Your task to perform on an android device: Open settings Image 0: 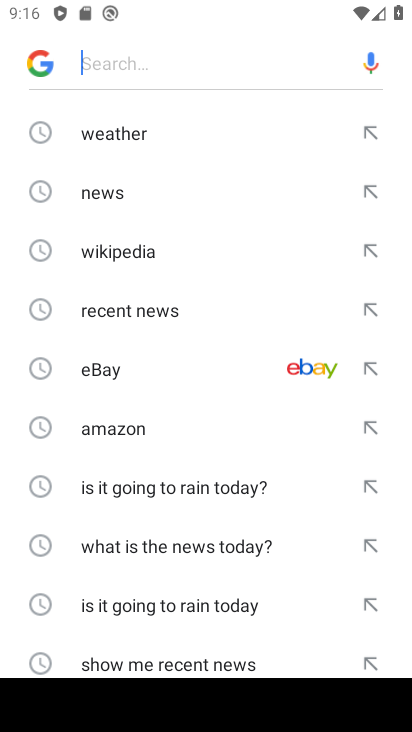
Step 0: press home button
Your task to perform on an android device: Open settings Image 1: 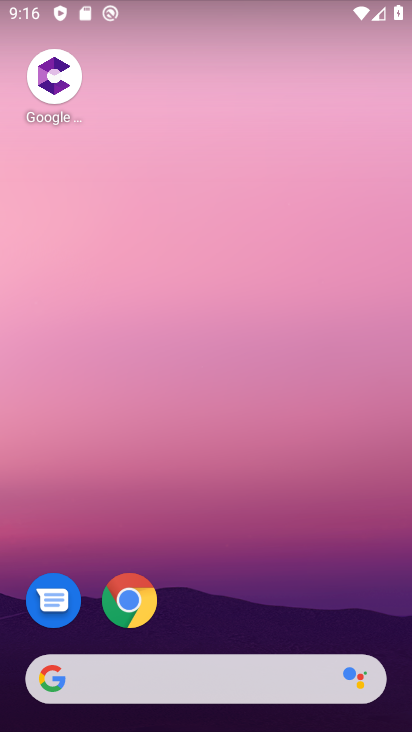
Step 1: drag from (401, 684) to (407, 181)
Your task to perform on an android device: Open settings Image 2: 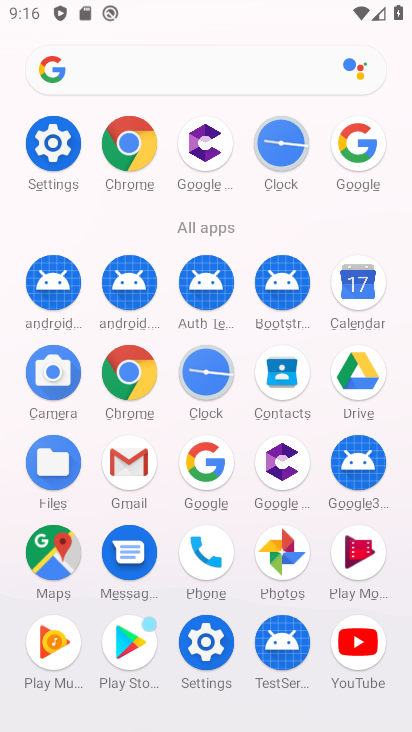
Step 2: click (54, 142)
Your task to perform on an android device: Open settings Image 3: 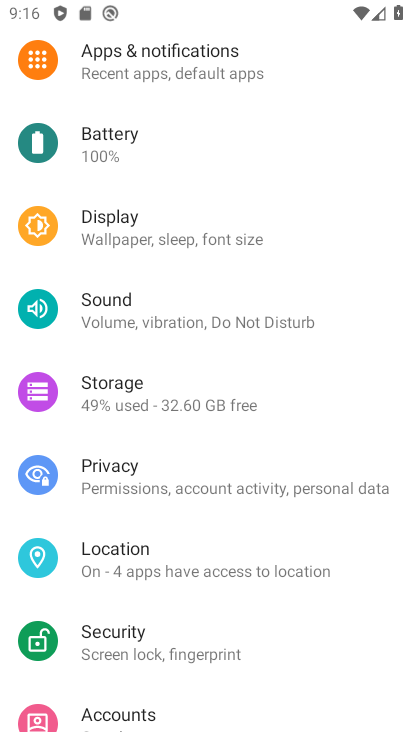
Step 3: task complete